Your task to perform on an android device: Open Youtube and go to "Your channel" Image 0: 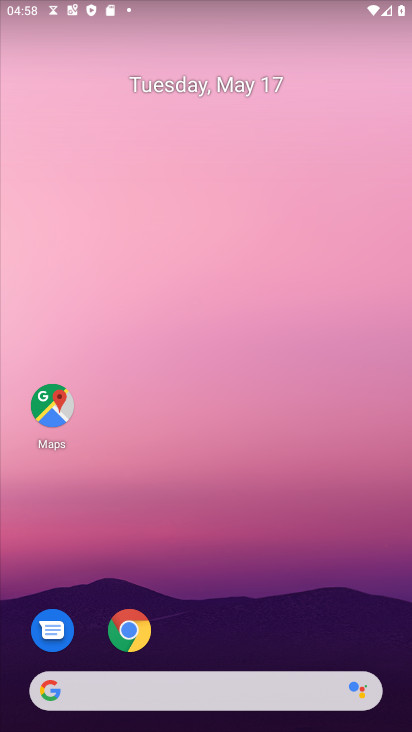
Step 0: drag from (260, 609) to (213, 95)
Your task to perform on an android device: Open Youtube and go to "Your channel" Image 1: 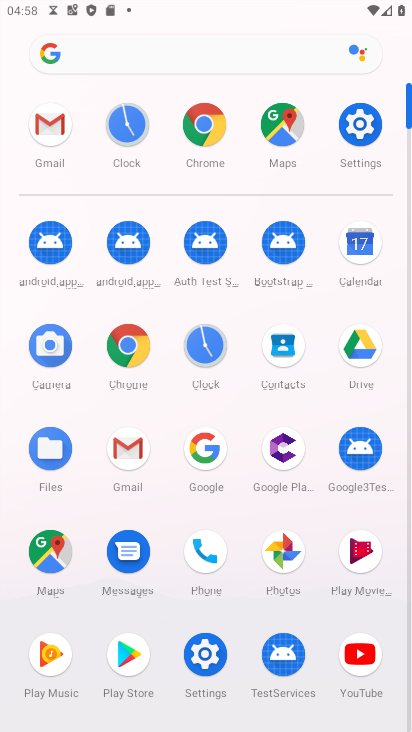
Step 1: click (361, 647)
Your task to perform on an android device: Open Youtube and go to "Your channel" Image 2: 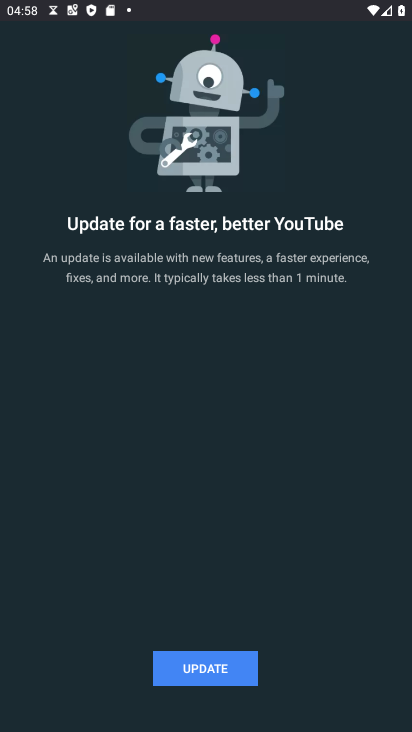
Step 2: click (239, 661)
Your task to perform on an android device: Open Youtube and go to "Your channel" Image 3: 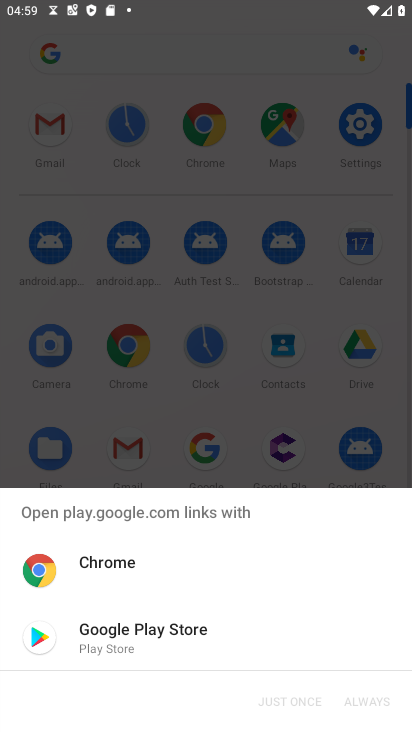
Step 3: click (117, 633)
Your task to perform on an android device: Open Youtube and go to "Your channel" Image 4: 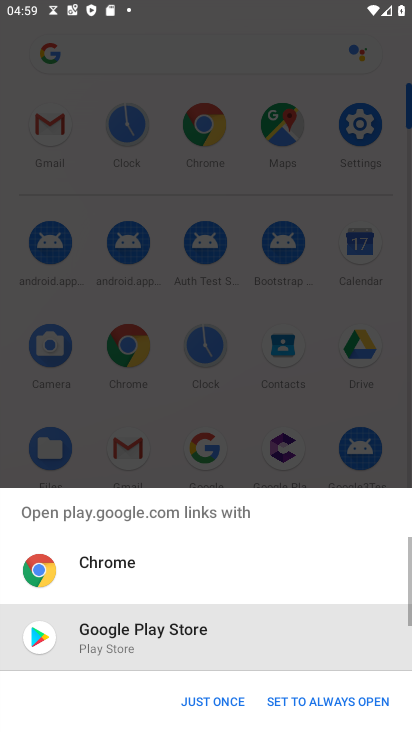
Step 4: click (233, 699)
Your task to perform on an android device: Open Youtube and go to "Your channel" Image 5: 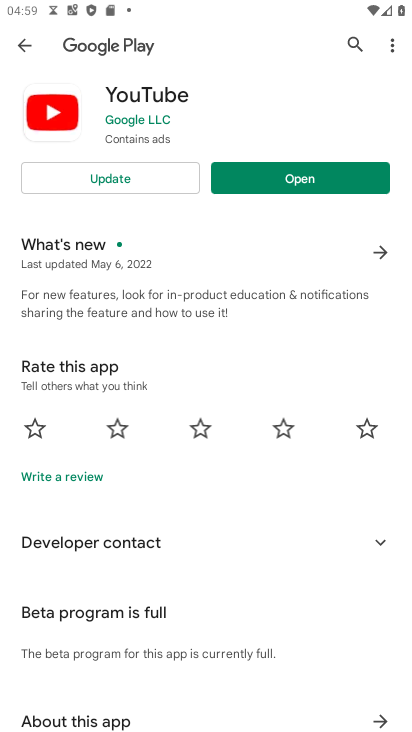
Step 5: click (90, 177)
Your task to perform on an android device: Open Youtube and go to "Your channel" Image 6: 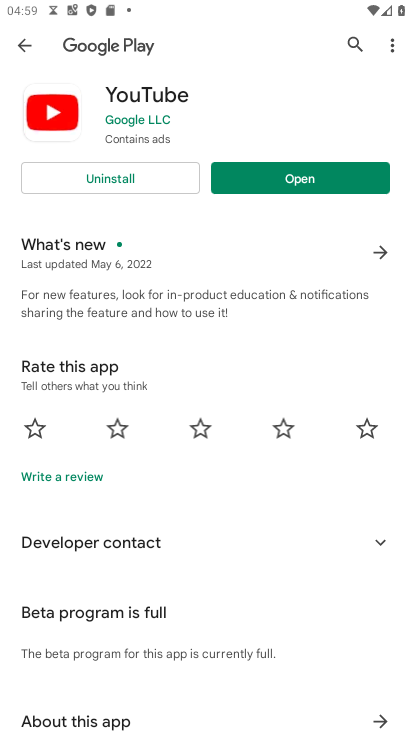
Step 6: click (249, 181)
Your task to perform on an android device: Open Youtube and go to "Your channel" Image 7: 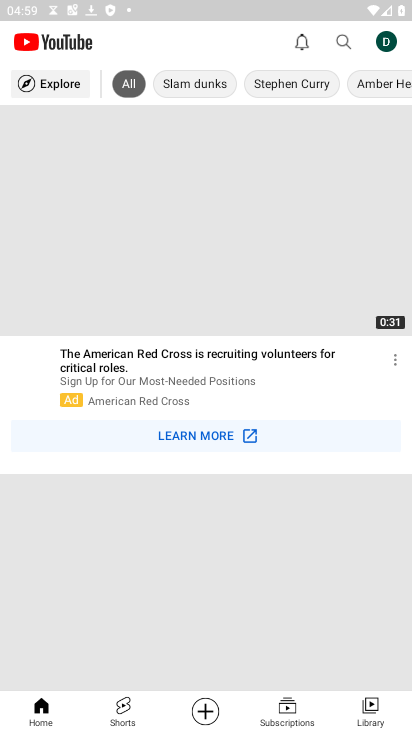
Step 7: click (385, 45)
Your task to perform on an android device: Open Youtube and go to "Your channel" Image 8: 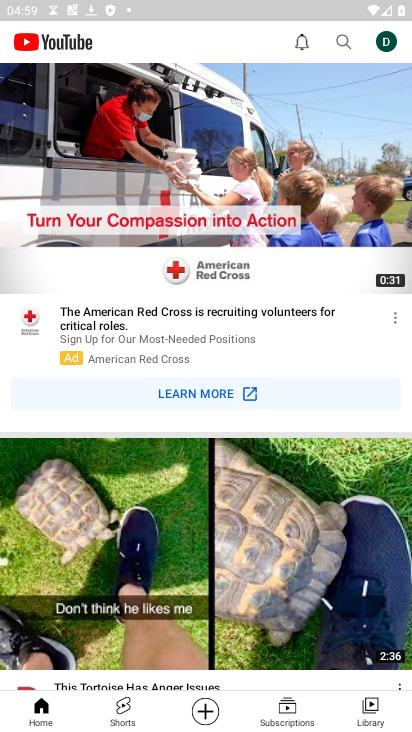
Step 8: click (387, 45)
Your task to perform on an android device: Open Youtube and go to "Your channel" Image 9: 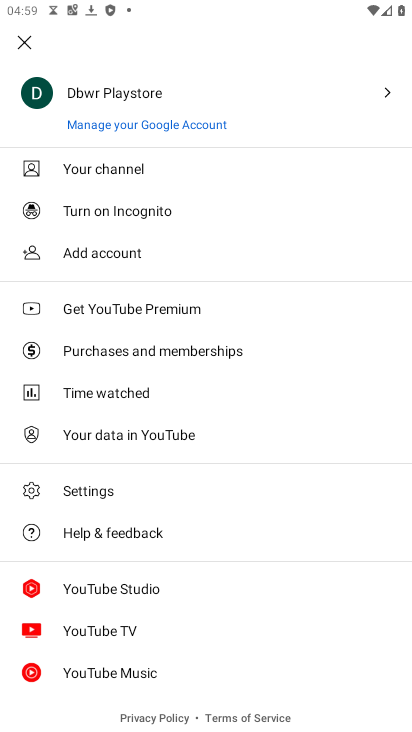
Step 9: click (93, 172)
Your task to perform on an android device: Open Youtube and go to "Your channel" Image 10: 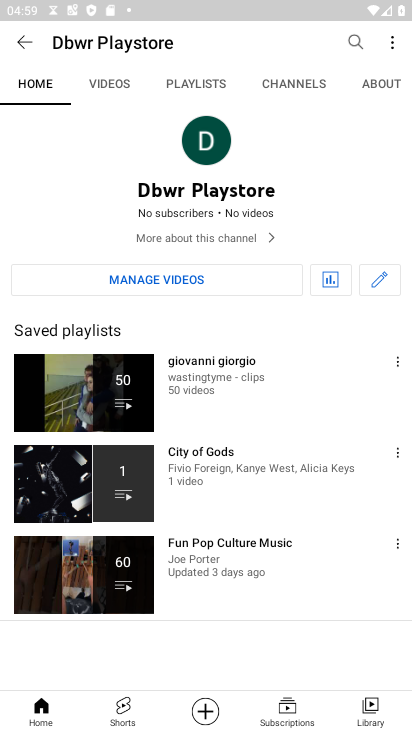
Step 10: task complete